Your task to perform on an android device: install app "Mercado Libre" Image 0: 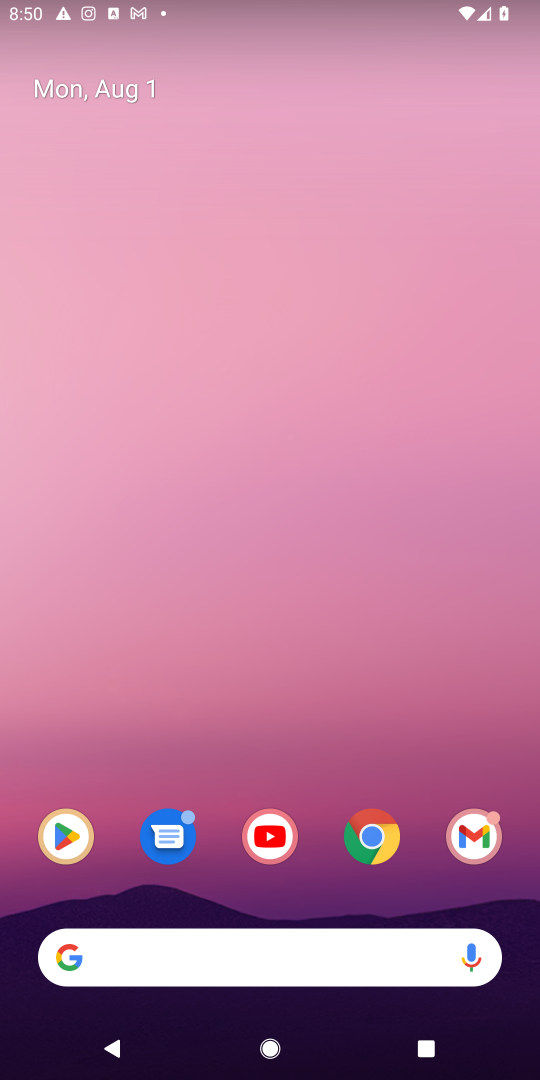
Step 0: click (65, 838)
Your task to perform on an android device: install app "Mercado Libre" Image 1: 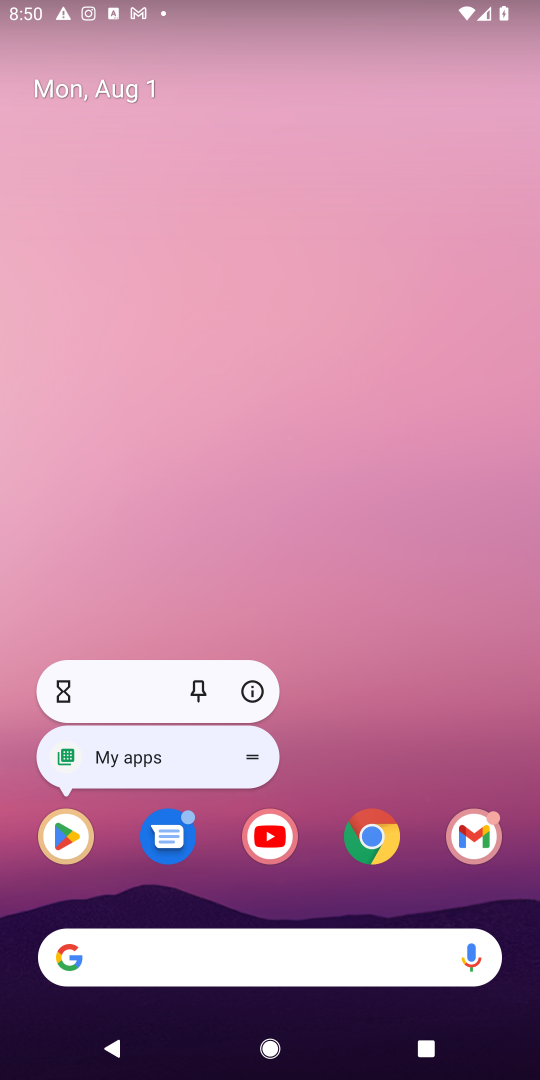
Step 1: click (65, 838)
Your task to perform on an android device: install app "Mercado Libre" Image 2: 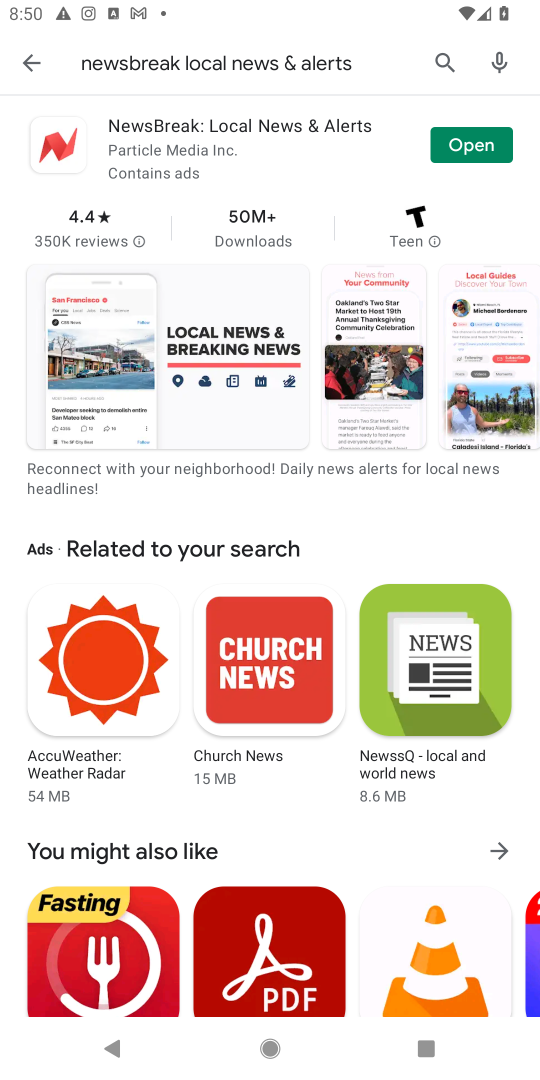
Step 2: click (438, 58)
Your task to perform on an android device: install app "Mercado Libre" Image 3: 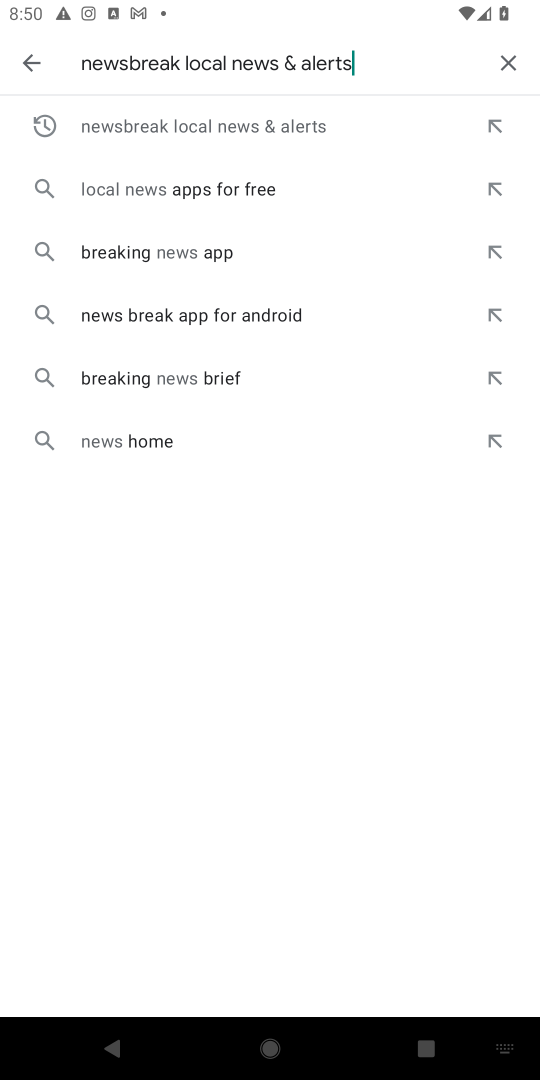
Step 3: click (509, 65)
Your task to perform on an android device: install app "Mercado Libre" Image 4: 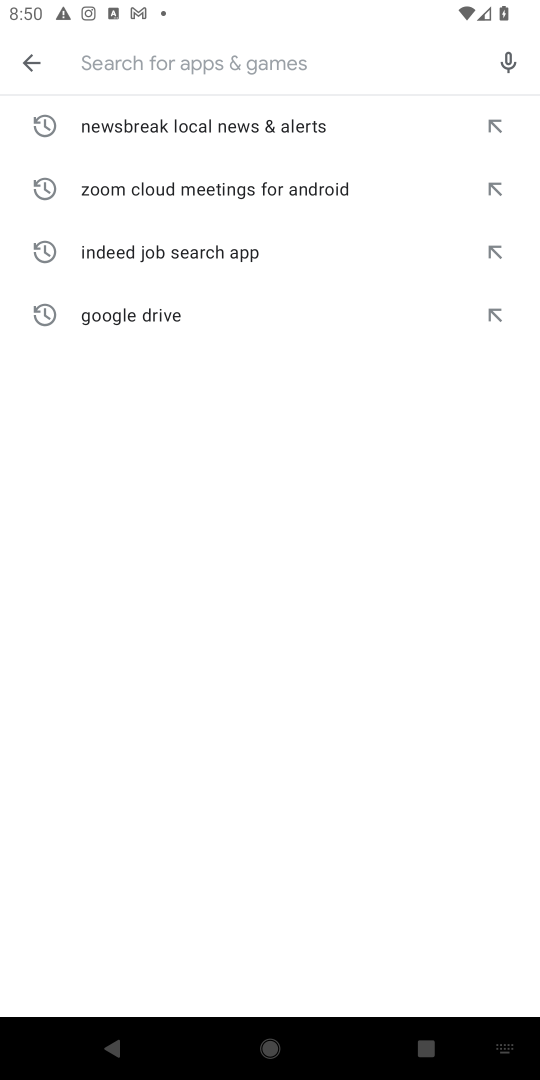
Step 4: type "Mercado Libre"
Your task to perform on an android device: install app "Mercado Libre" Image 5: 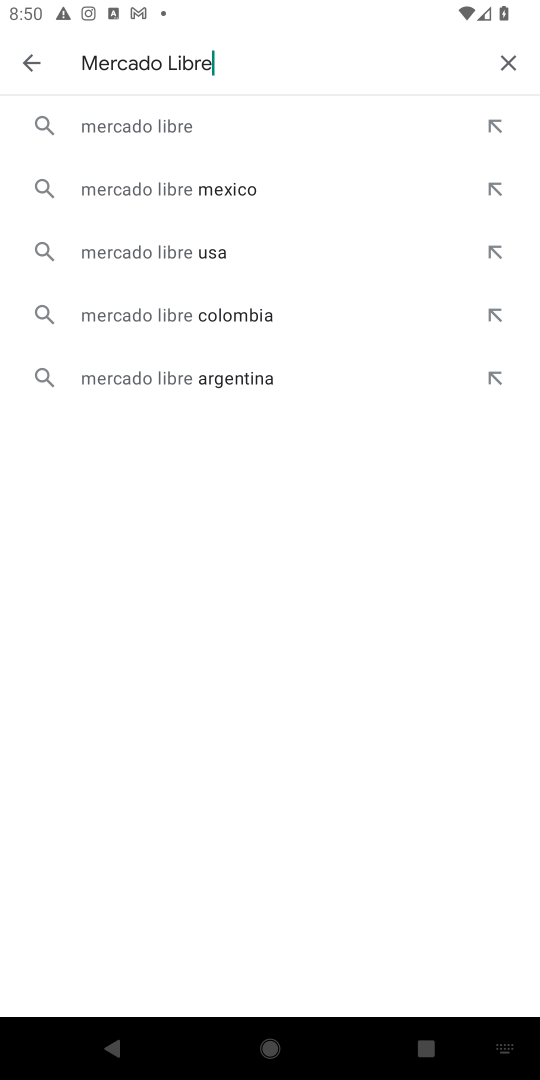
Step 5: click (171, 119)
Your task to perform on an android device: install app "Mercado Libre" Image 6: 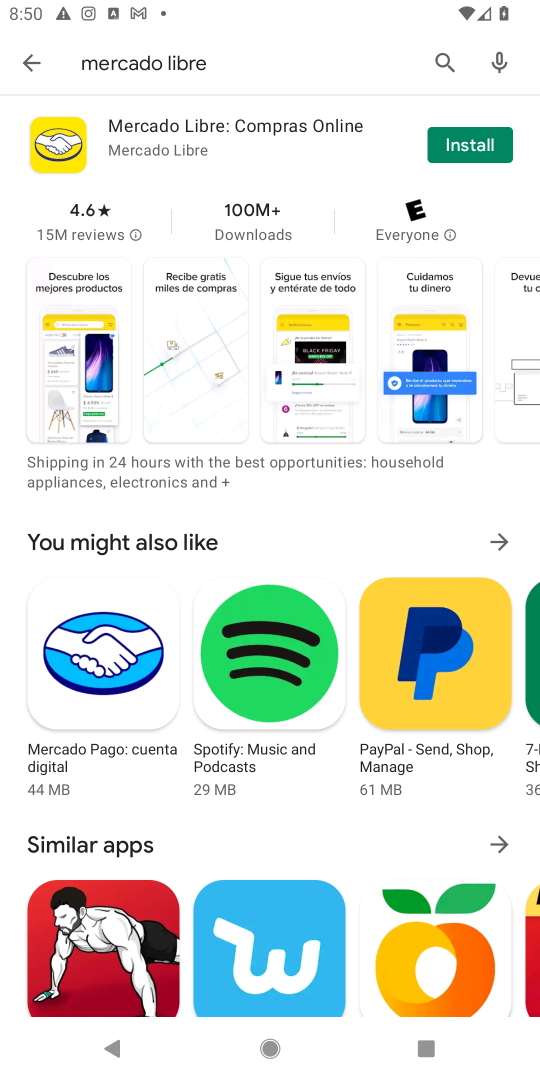
Step 6: click (459, 151)
Your task to perform on an android device: install app "Mercado Libre" Image 7: 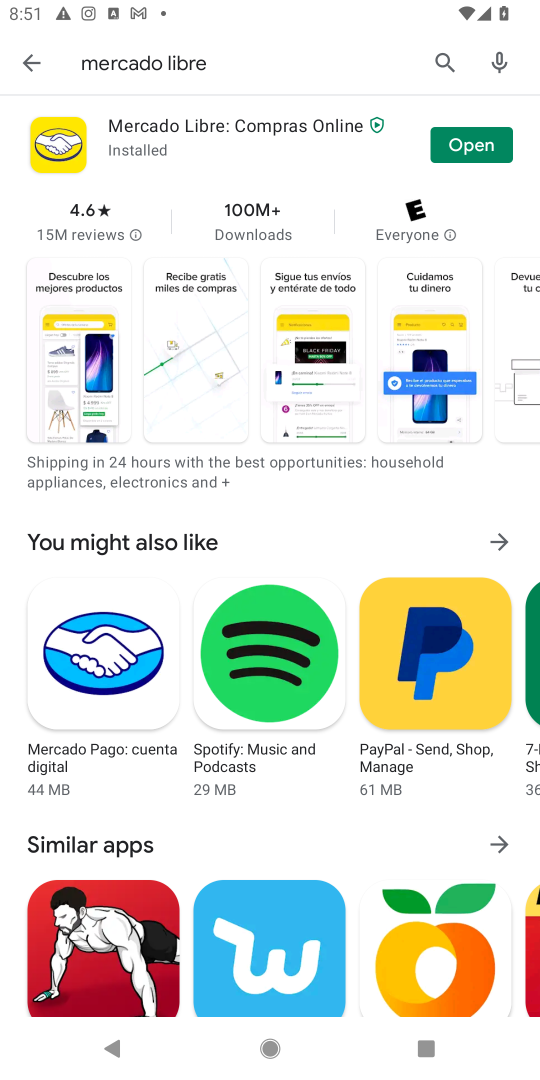
Step 7: task complete